Your task to perform on an android device: toggle improve location accuracy Image 0: 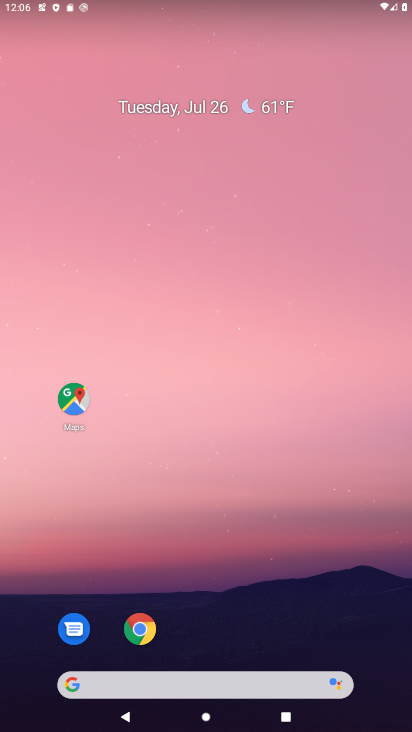
Step 0: drag from (223, 656) to (221, 239)
Your task to perform on an android device: toggle improve location accuracy Image 1: 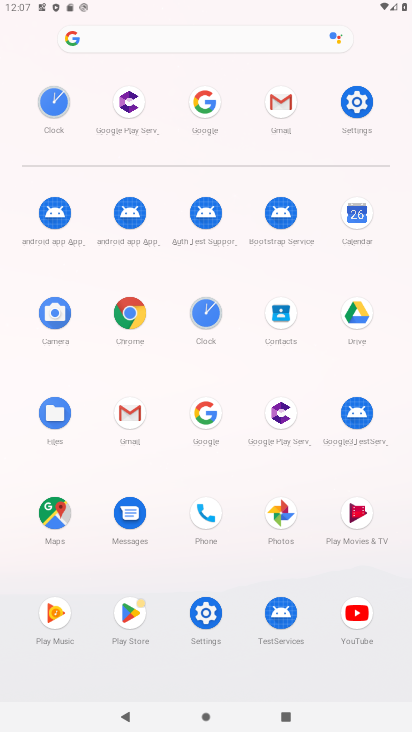
Step 1: click (352, 127)
Your task to perform on an android device: toggle improve location accuracy Image 2: 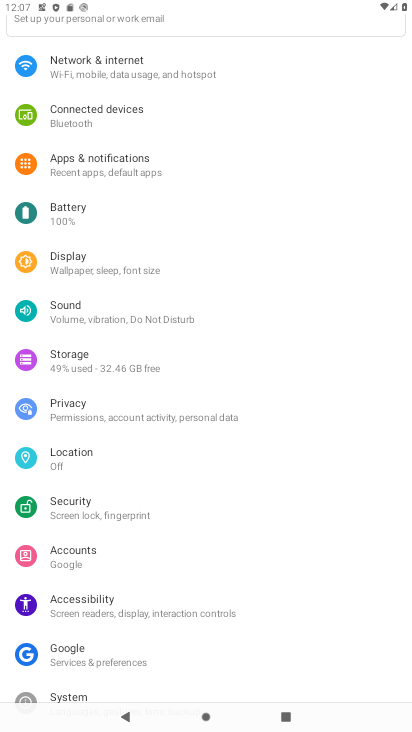
Step 2: click (97, 467)
Your task to perform on an android device: toggle improve location accuracy Image 3: 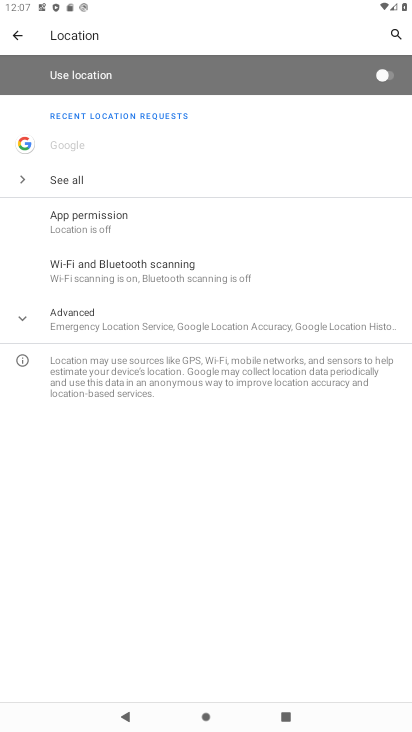
Step 3: click (105, 321)
Your task to perform on an android device: toggle improve location accuracy Image 4: 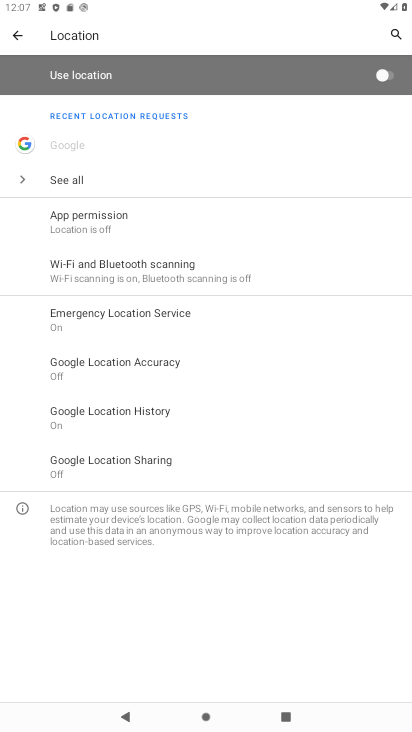
Step 4: click (181, 366)
Your task to perform on an android device: toggle improve location accuracy Image 5: 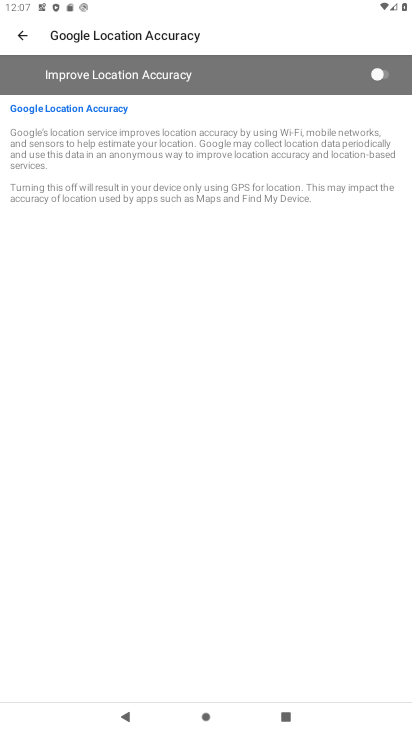
Step 5: task complete